Your task to perform on an android device: Show me the alarms in the clock app Image 0: 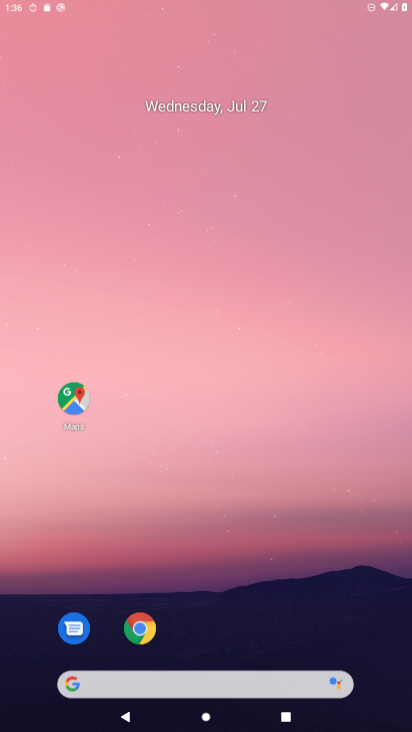
Step 0: press home button
Your task to perform on an android device: Show me the alarms in the clock app Image 1: 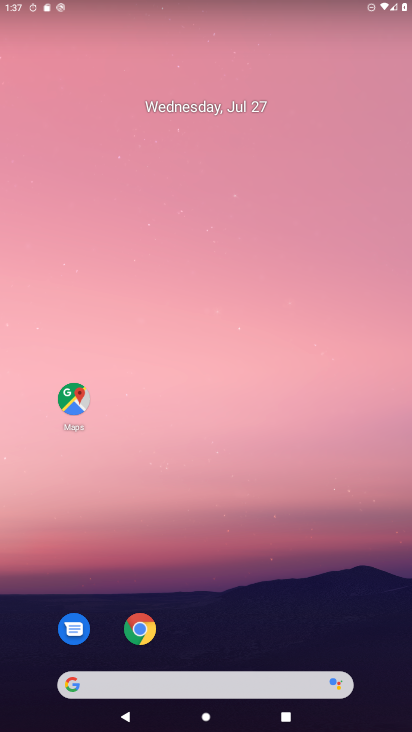
Step 1: drag from (316, 611) to (221, 1)
Your task to perform on an android device: Show me the alarms in the clock app Image 2: 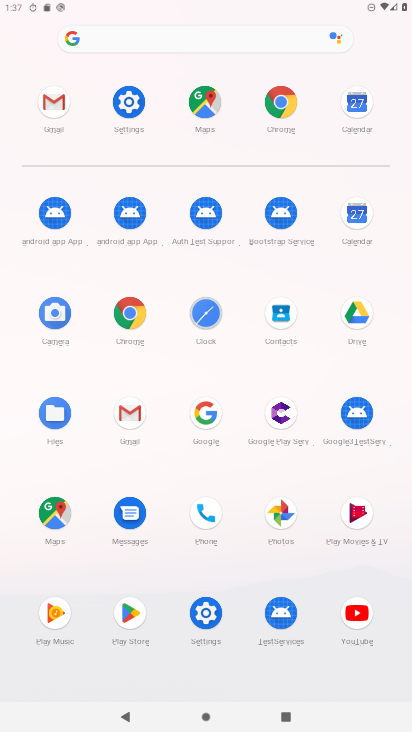
Step 2: click (203, 321)
Your task to perform on an android device: Show me the alarms in the clock app Image 3: 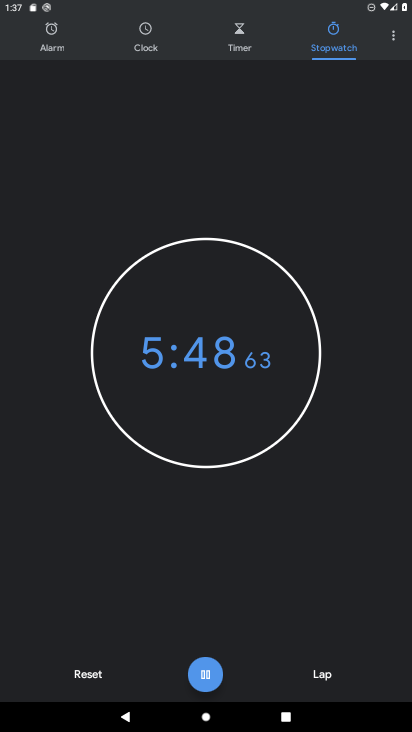
Step 3: click (53, 32)
Your task to perform on an android device: Show me the alarms in the clock app Image 4: 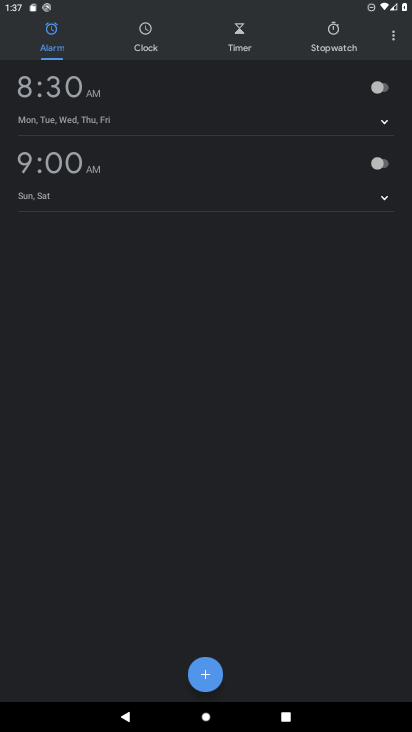
Step 4: task complete